Your task to perform on an android device: Check the weather Image 0: 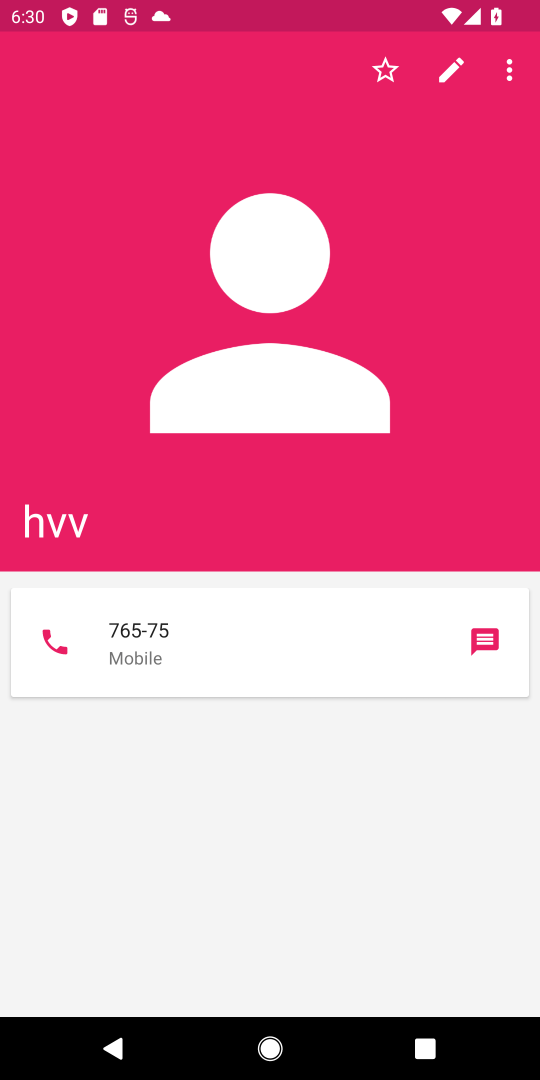
Step 0: press back button
Your task to perform on an android device: Check the weather Image 1: 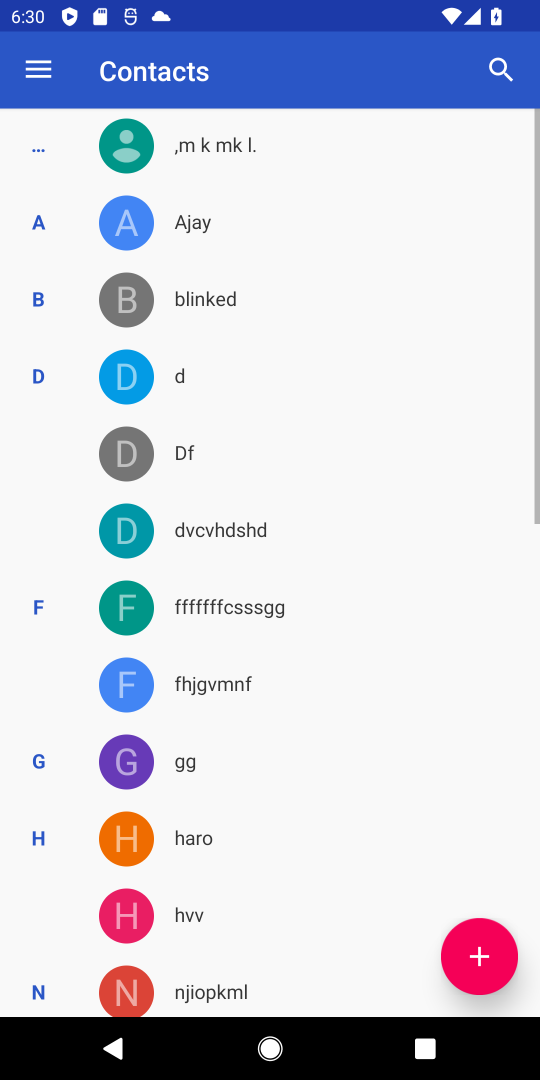
Step 1: press back button
Your task to perform on an android device: Check the weather Image 2: 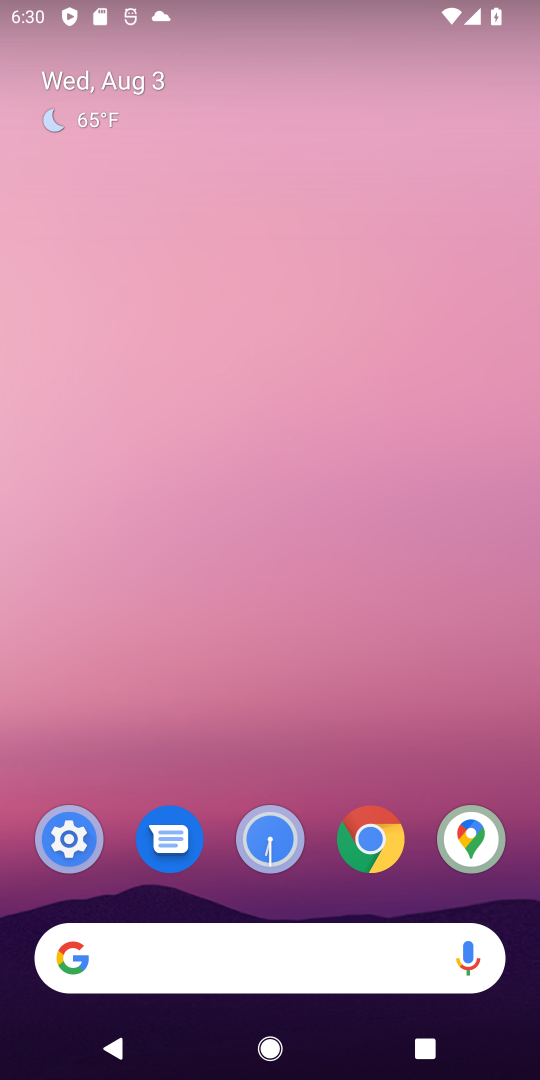
Step 2: click (171, 966)
Your task to perform on an android device: Check the weather Image 3: 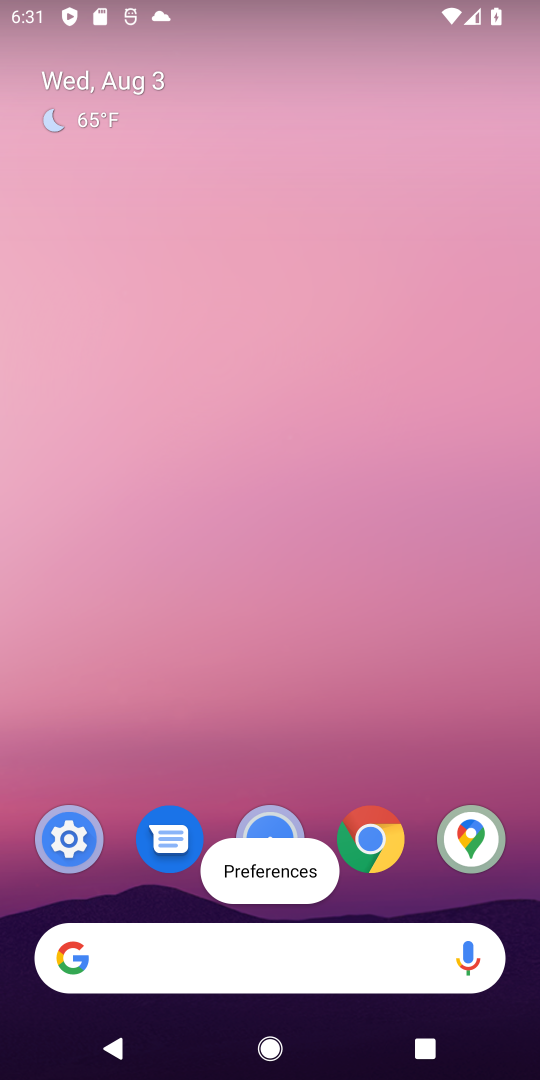
Step 3: click (214, 977)
Your task to perform on an android device: Check the weather Image 4: 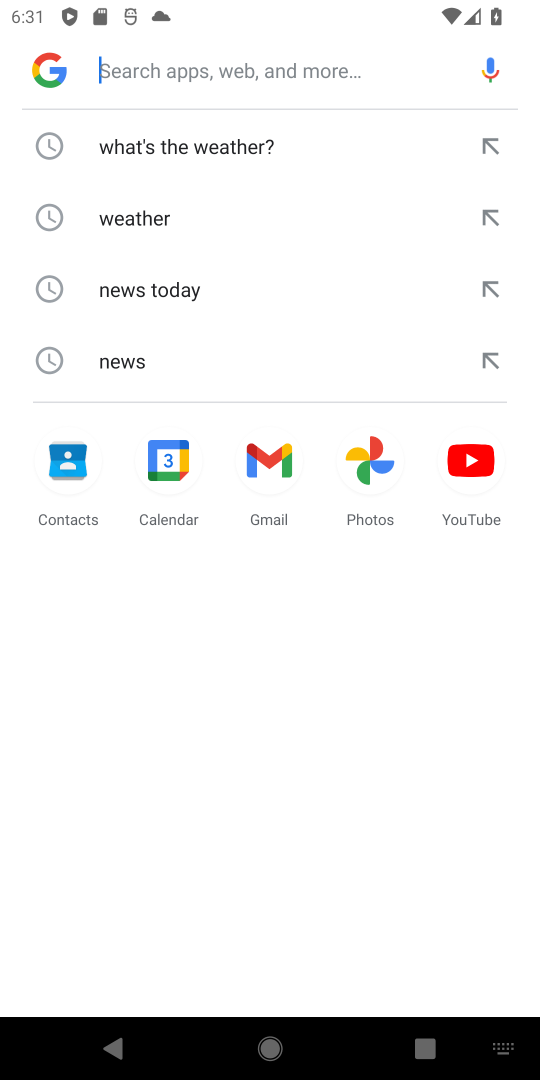
Step 4: click (133, 222)
Your task to perform on an android device: Check the weather Image 5: 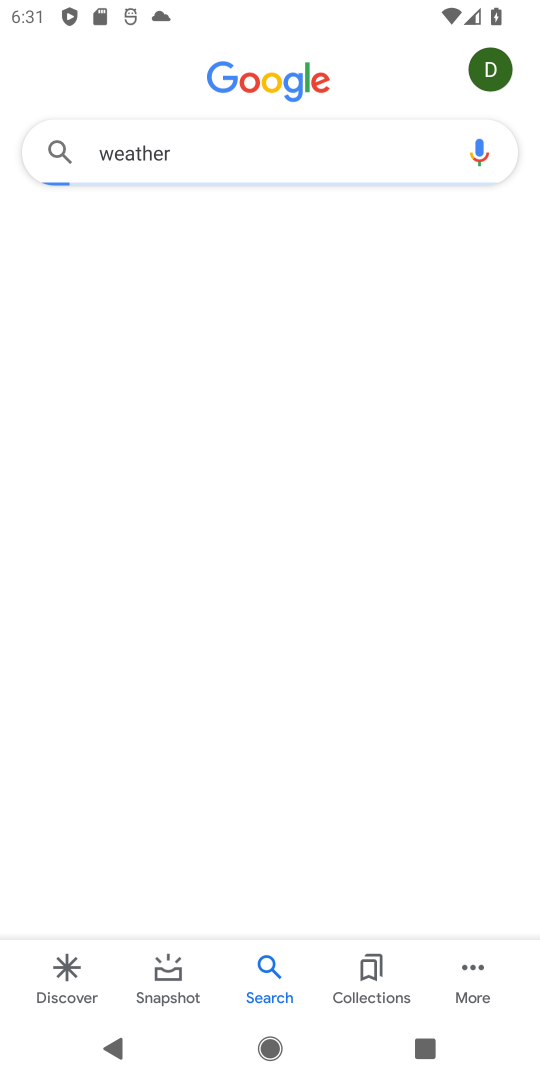
Step 5: click (113, 213)
Your task to perform on an android device: Check the weather Image 6: 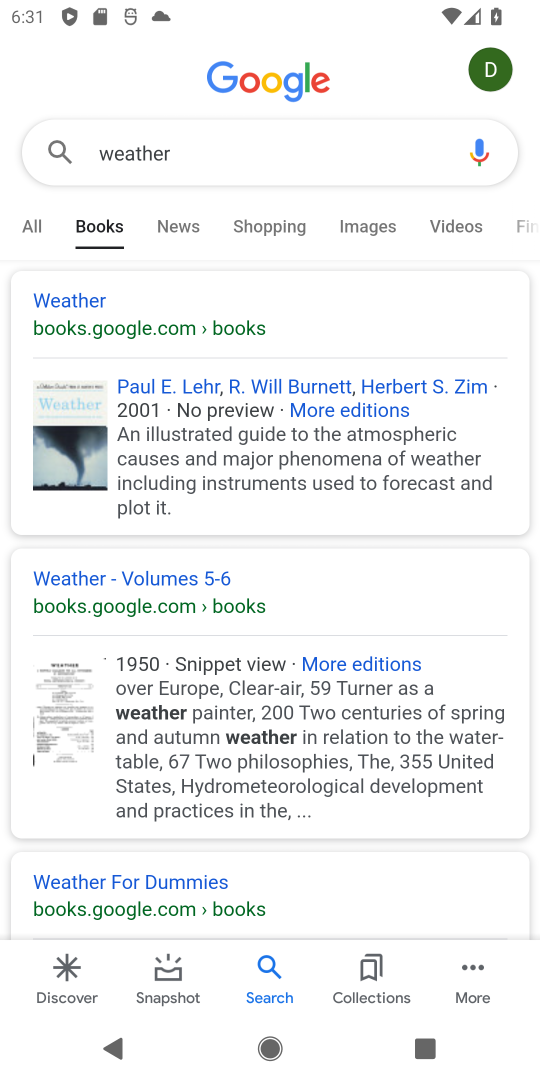
Step 6: task complete